Your task to perform on an android device: show emergency info Image 0: 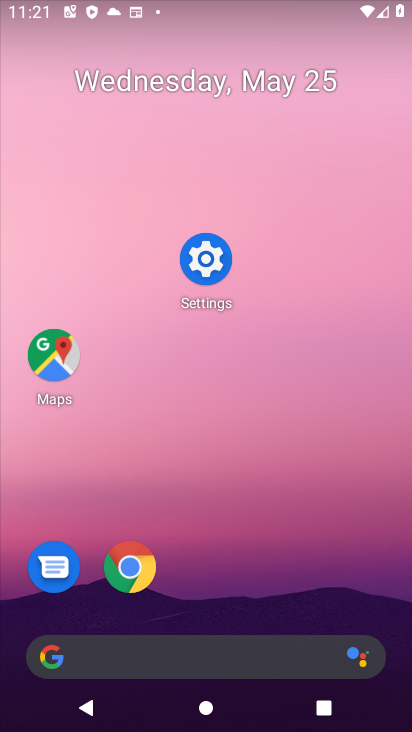
Step 0: drag from (340, 593) to (350, 3)
Your task to perform on an android device: show emergency info Image 1: 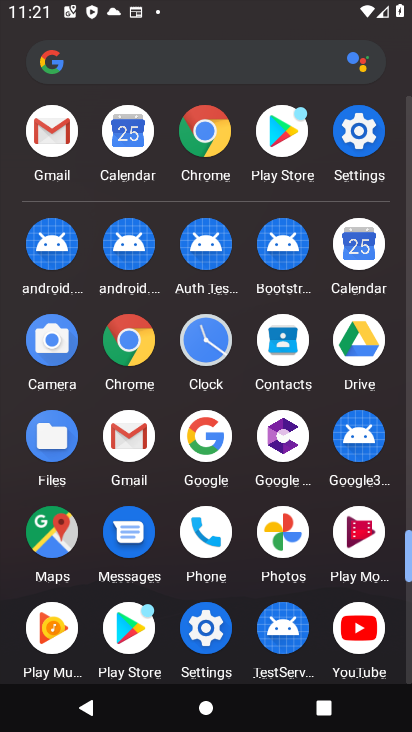
Step 1: click (348, 115)
Your task to perform on an android device: show emergency info Image 2: 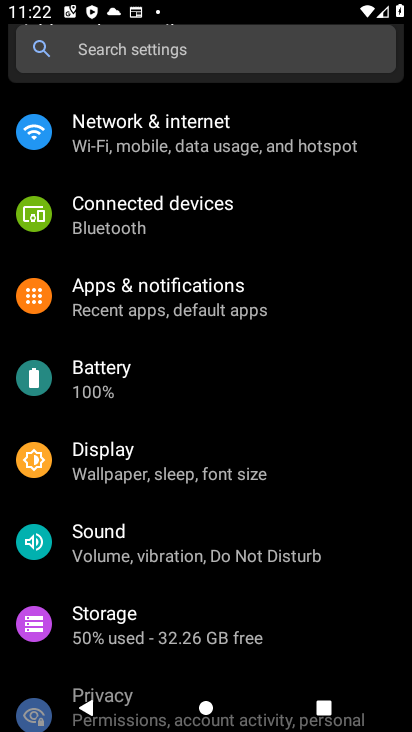
Step 2: drag from (181, 593) to (204, 274)
Your task to perform on an android device: show emergency info Image 3: 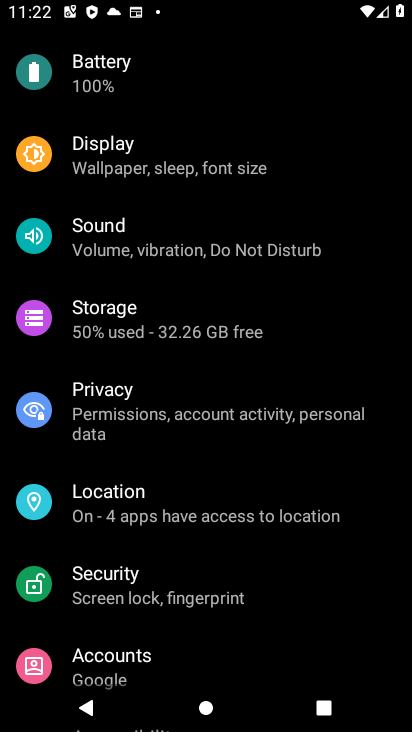
Step 3: drag from (200, 516) to (271, 188)
Your task to perform on an android device: show emergency info Image 4: 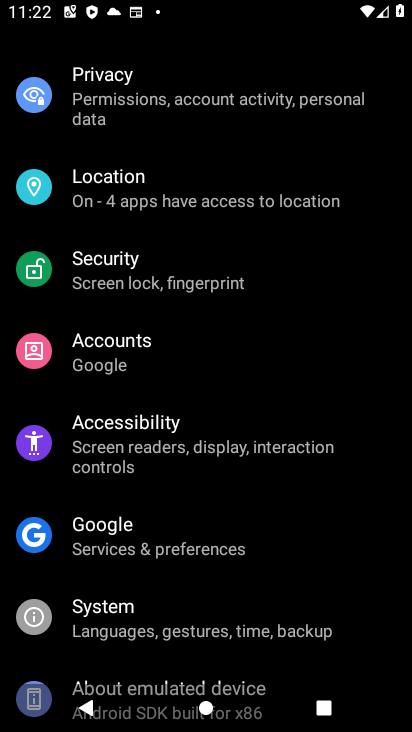
Step 4: click (142, 675)
Your task to perform on an android device: show emergency info Image 5: 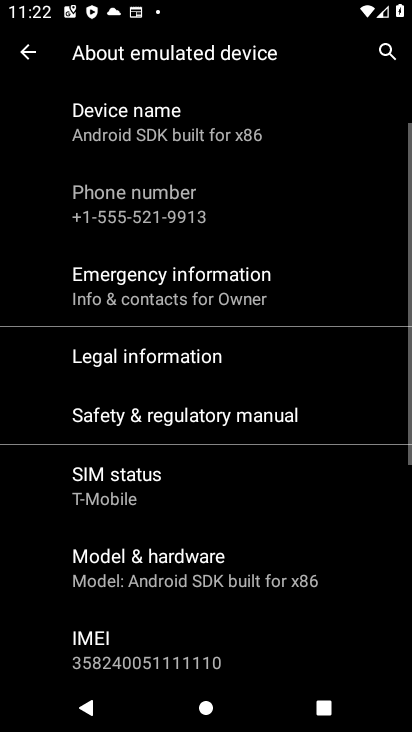
Step 5: click (295, 270)
Your task to perform on an android device: show emergency info Image 6: 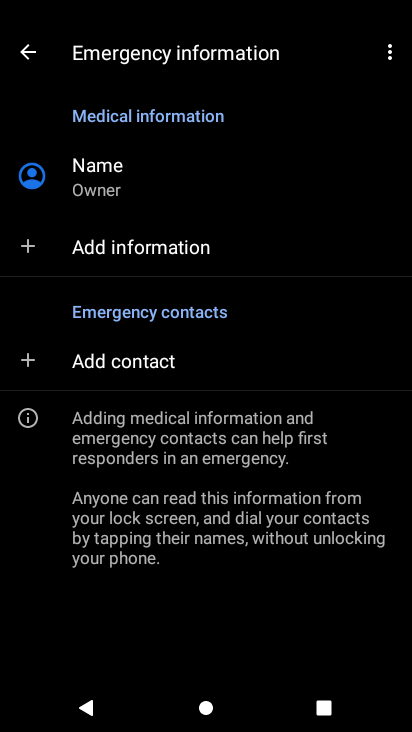
Step 6: task complete